Your task to perform on an android device: open app "Contacts" (install if not already installed) Image 0: 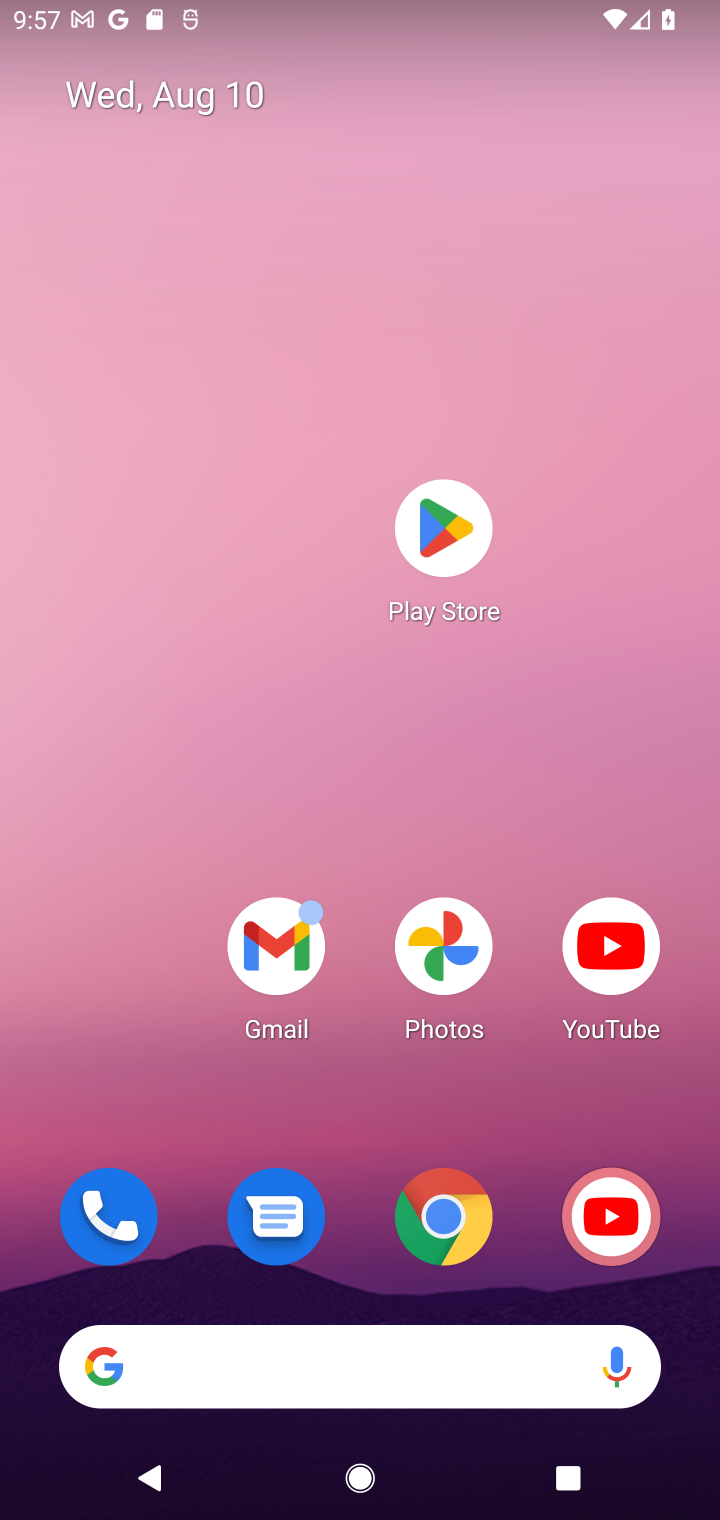
Step 0: press home button
Your task to perform on an android device: open app "Contacts" (install if not already installed) Image 1: 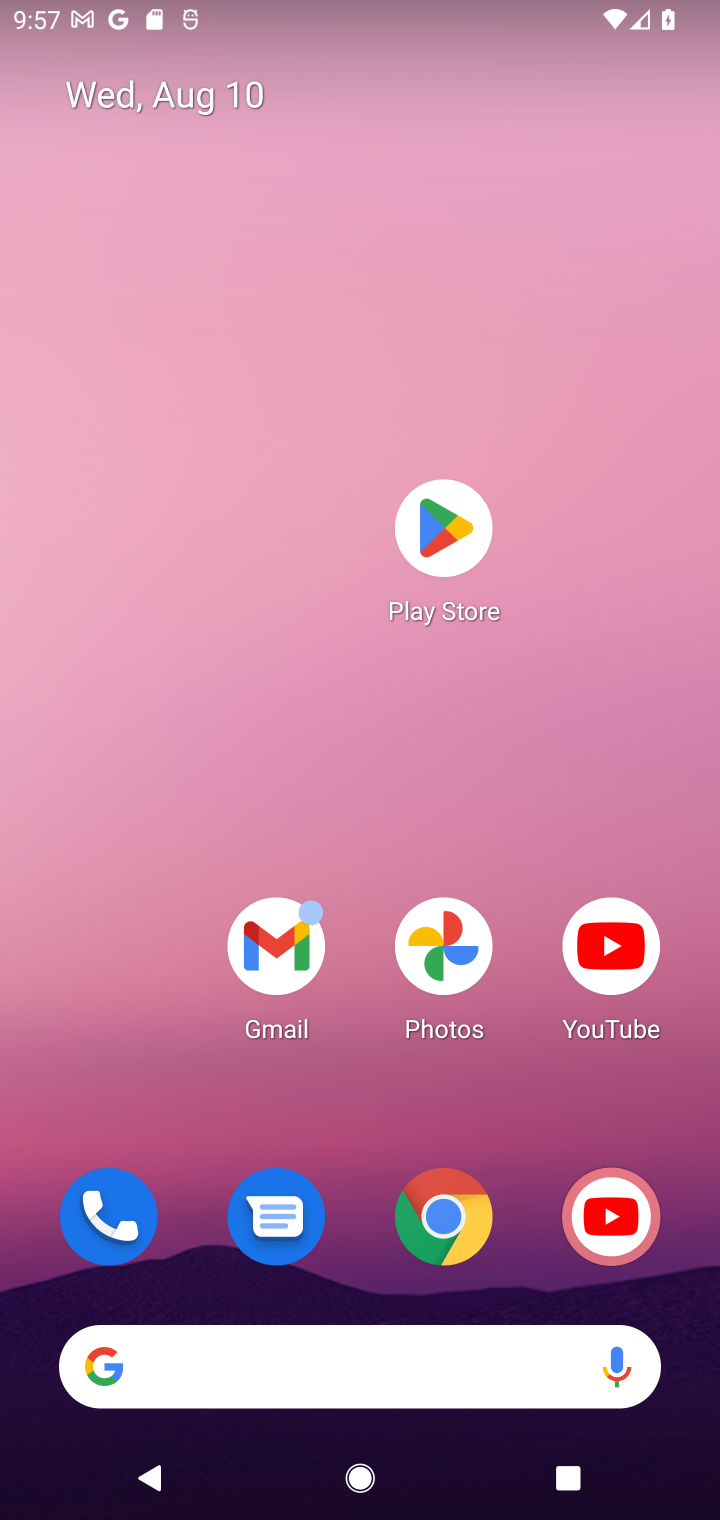
Step 1: click (462, 535)
Your task to perform on an android device: open app "Contacts" (install if not already installed) Image 2: 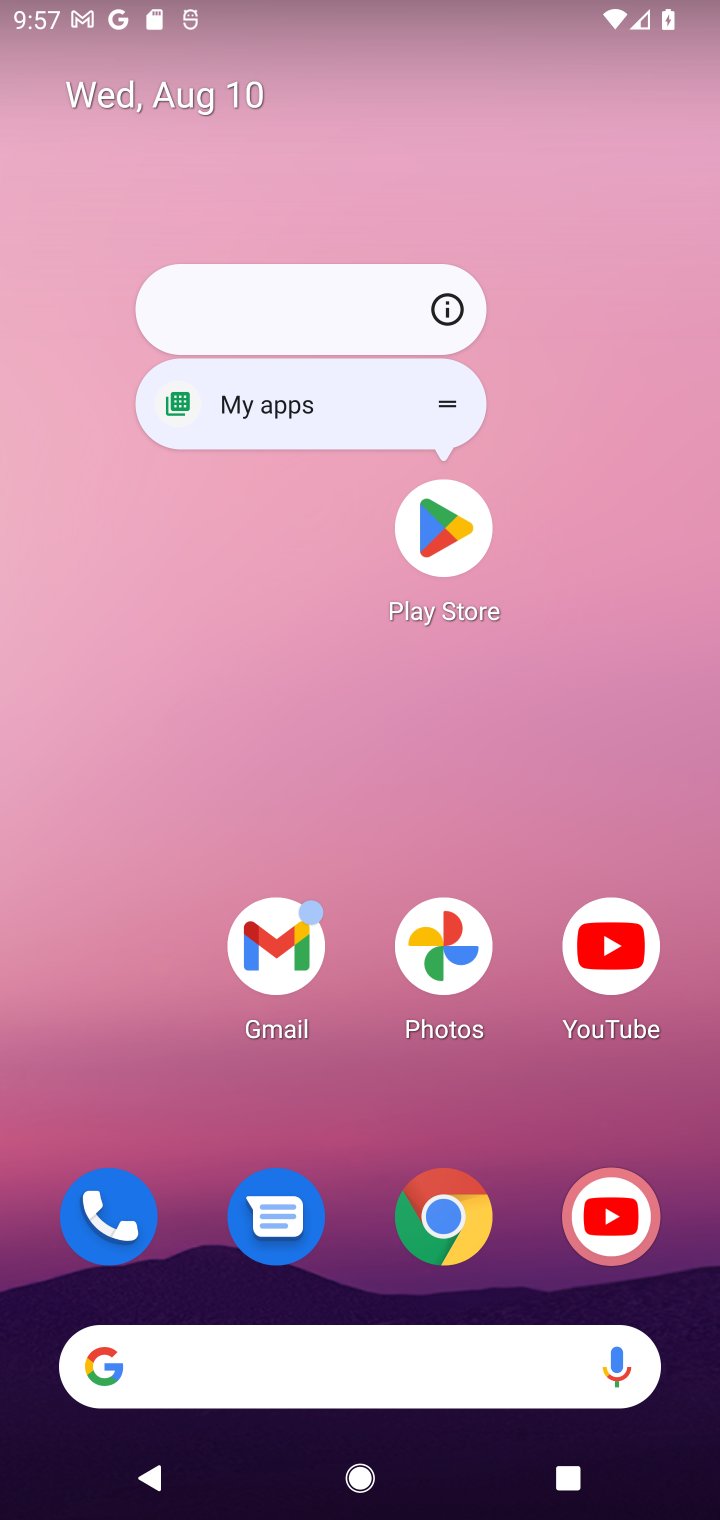
Step 2: click (441, 522)
Your task to perform on an android device: open app "Contacts" (install if not already installed) Image 3: 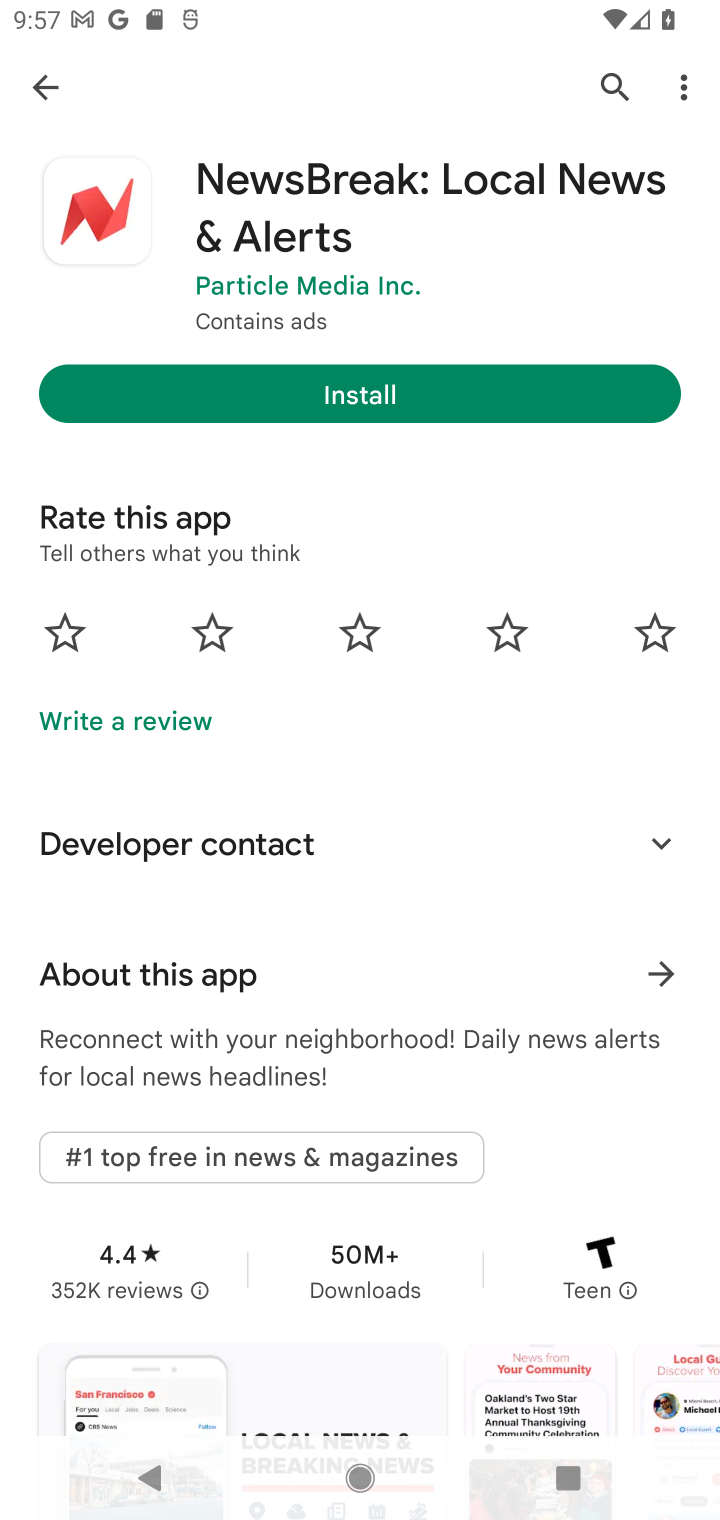
Step 3: click (600, 78)
Your task to perform on an android device: open app "Contacts" (install if not already installed) Image 4: 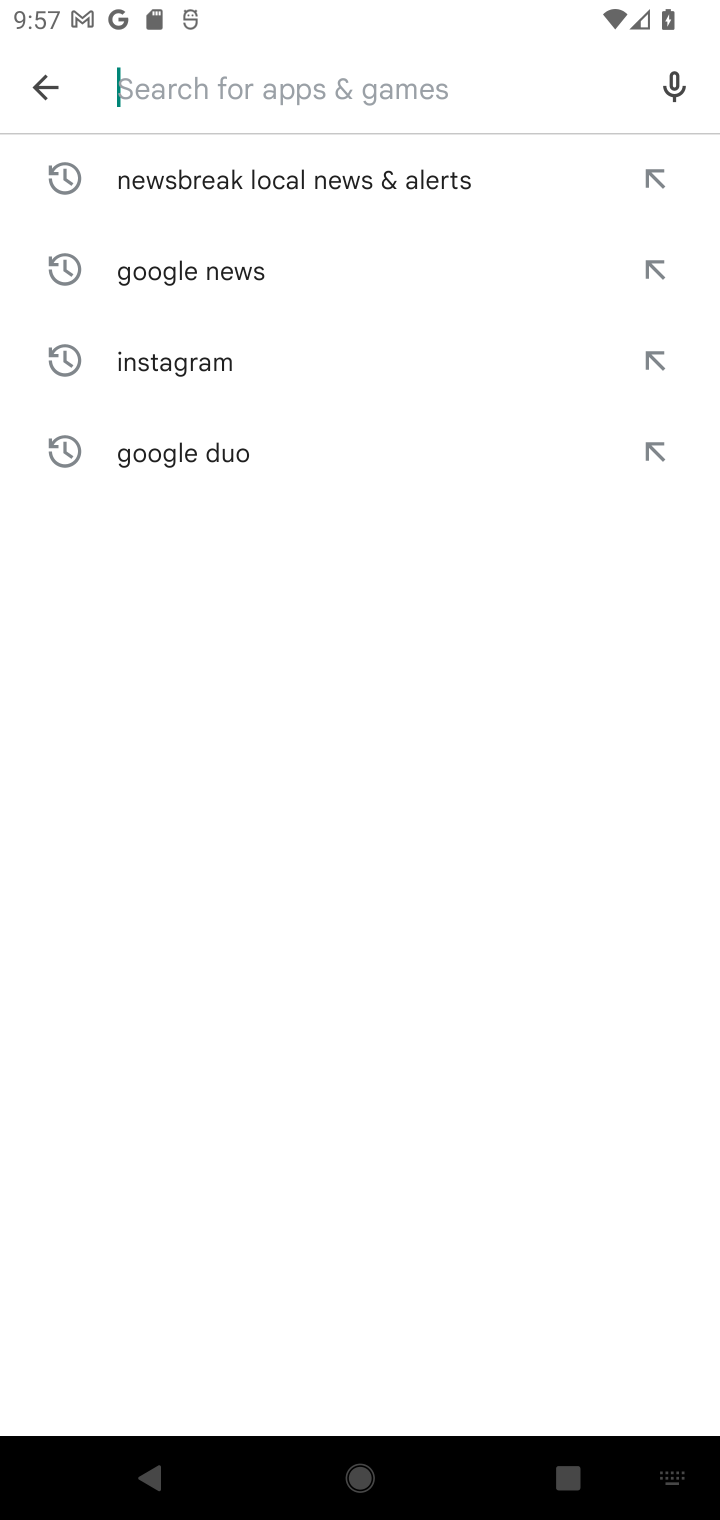
Step 4: type "Contacts"
Your task to perform on an android device: open app "Contacts" (install if not already installed) Image 5: 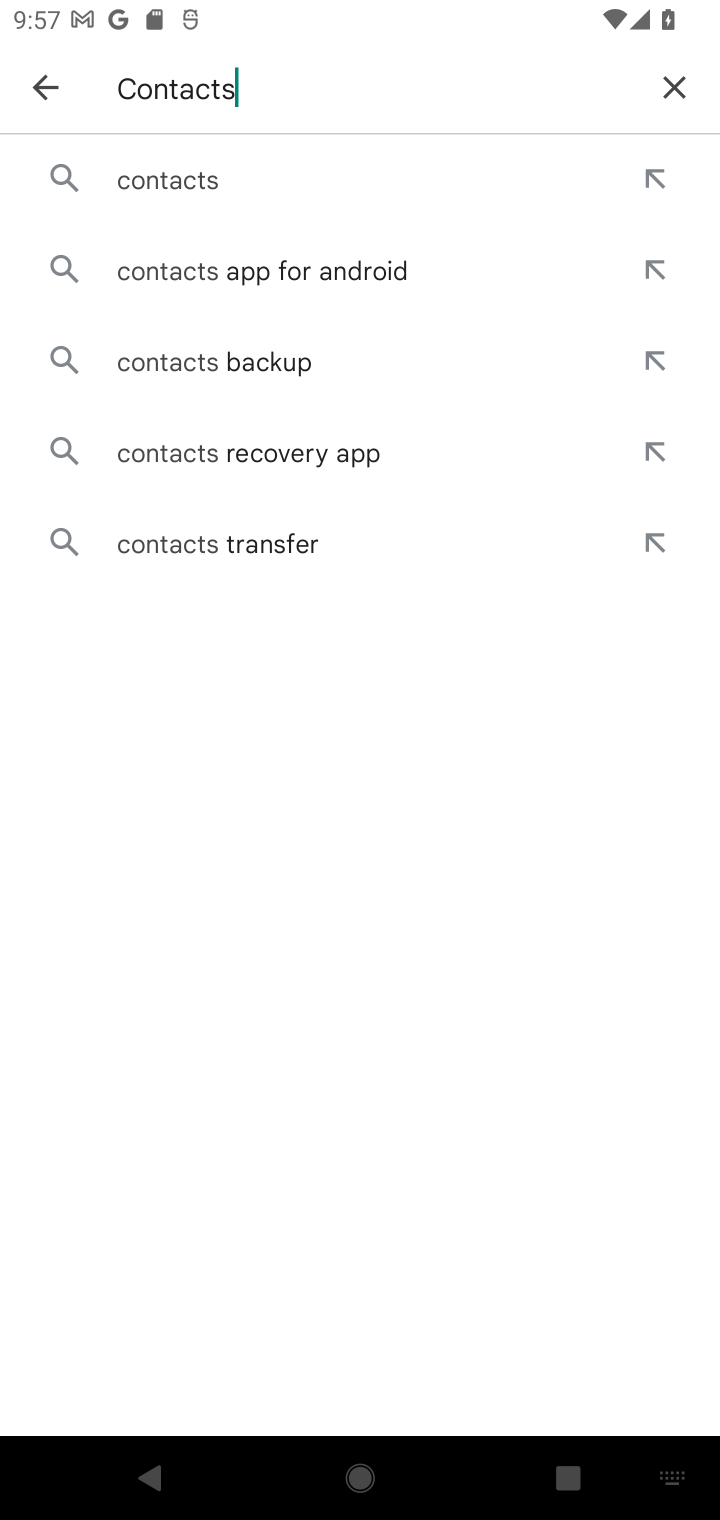
Step 5: click (233, 185)
Your task to perform on an android device: open app "Contacts" (install if not already installed) Image 6: 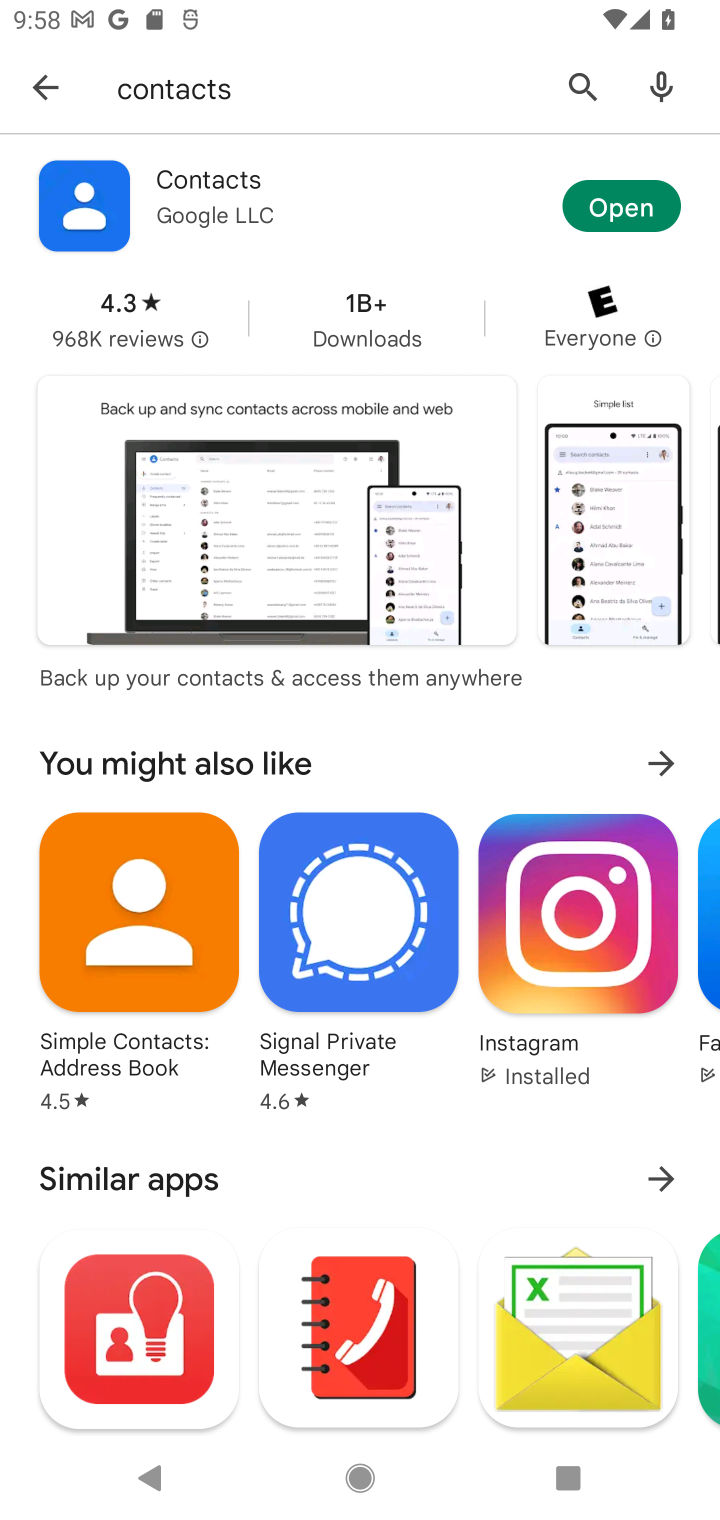
Step 6: click (643, 216)
Your task to perform on an android device: open app "Contacts" (install if not already installed) Image 7: 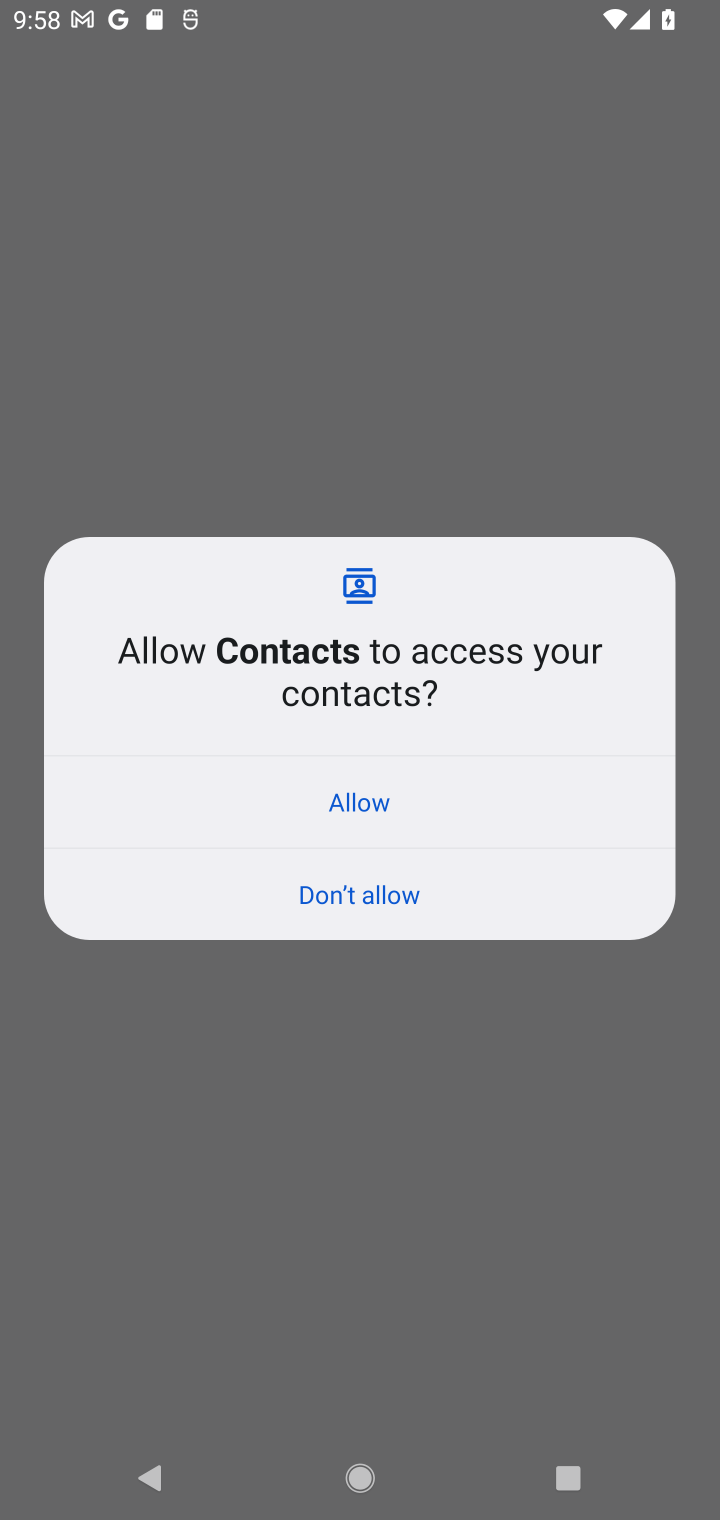
Step 7: click (438, 814)
Your task to perform on an android device: open app "Contacts" (install if not already installed) Image 8: 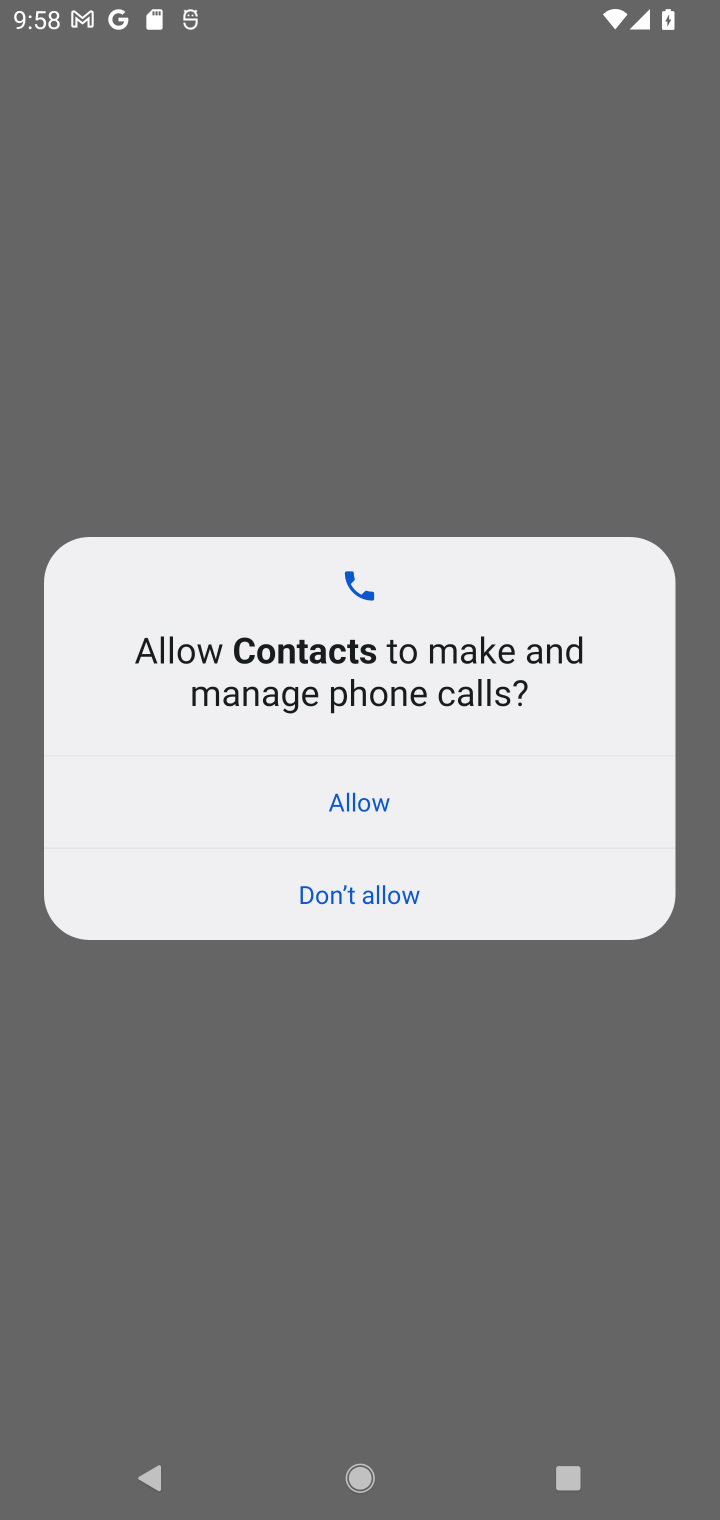
Step 8: click (375, 805)
Your task to perform on an android device: open app "Contacts" (install if not already installed) Image 9: 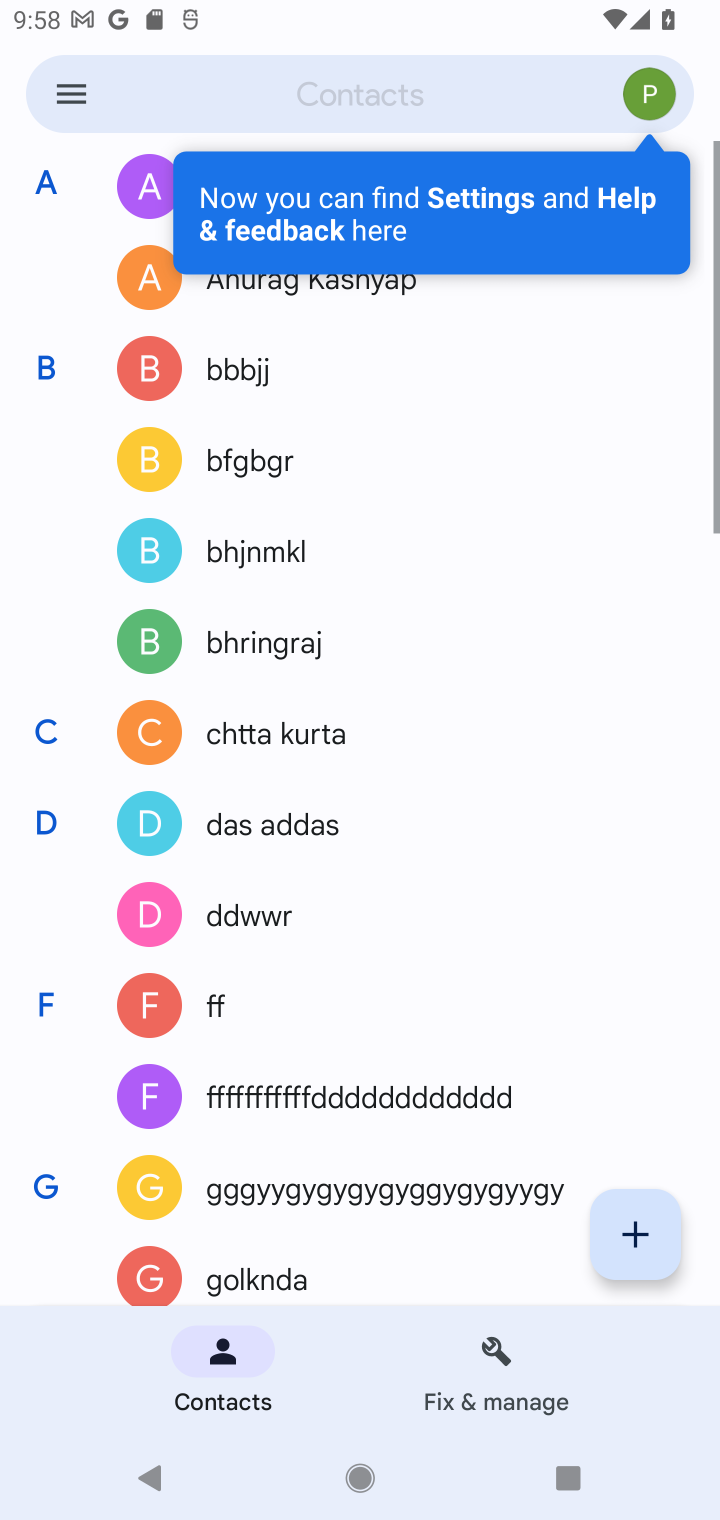
Step 9: task complete